Your task to perform on an android device: Open battery settings Image 0: 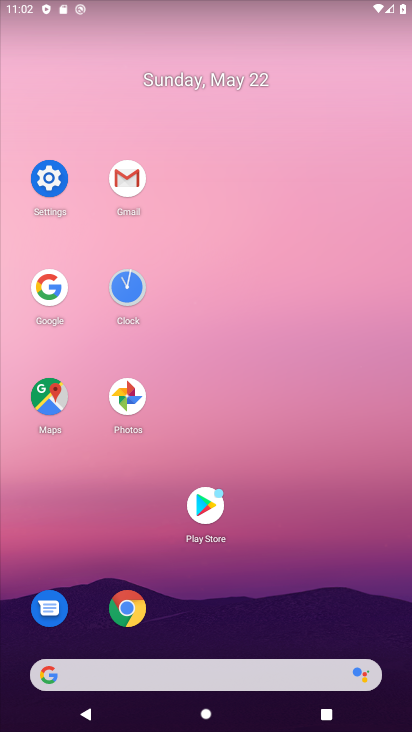
Step 0: click (56, 200)
Your task to perform on an android device: Open battery settings Image 1: 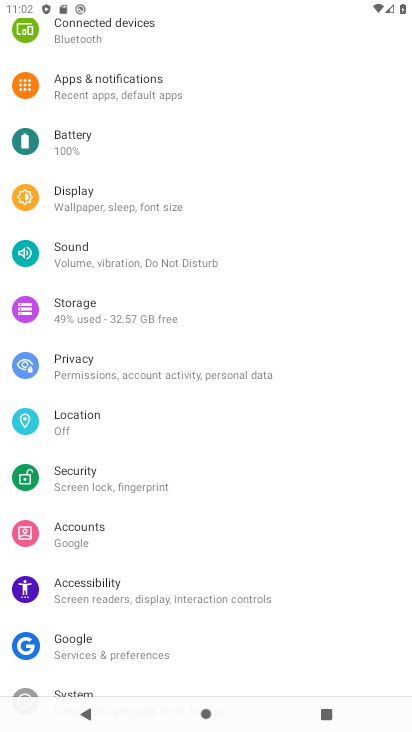
Step 1: click (150, 162)
Your task to perform on an android device: Open battery settings Image 2: 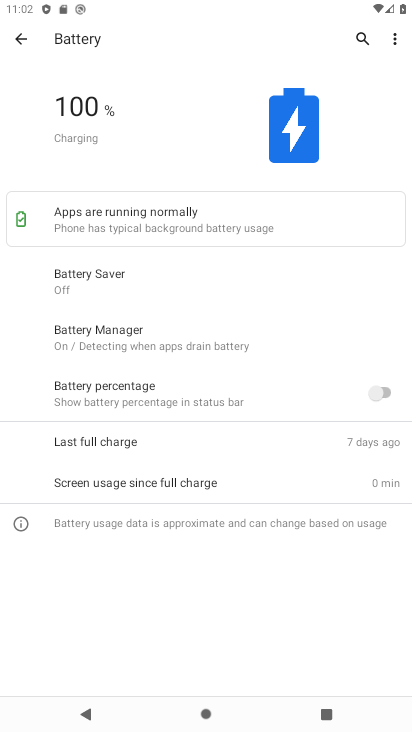
Step 2: task complete